Your task to perform on an android device: Go to privacy settings Image 0: 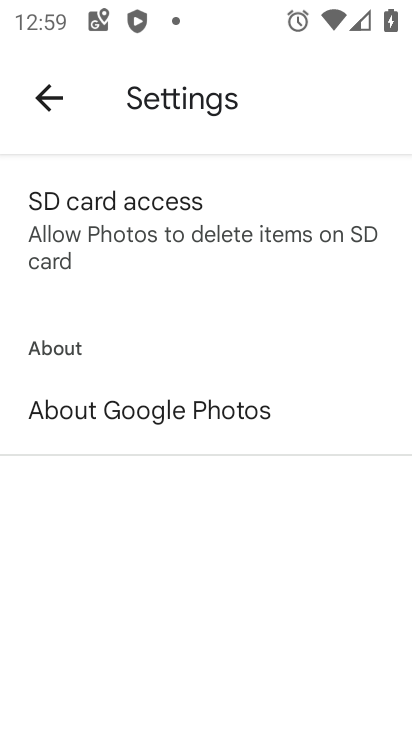
Step 0: press home button
Your task to perform on an android device: Go to privacy settings Image 1: 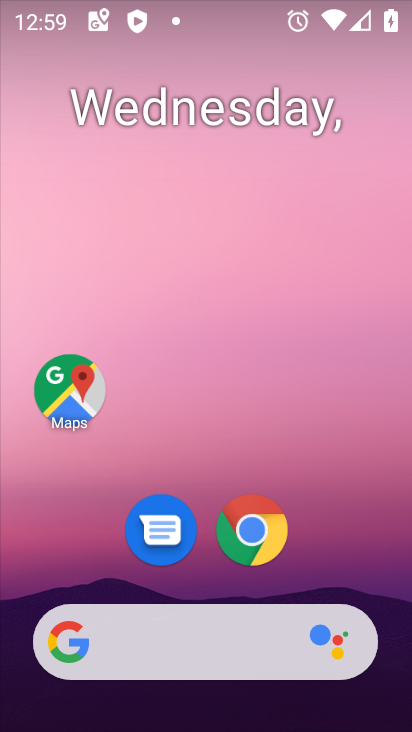
Step 1: drag from (211, 578) to (222, 175)
Your task to perform on an android device: Go to privacy settings Image 2: 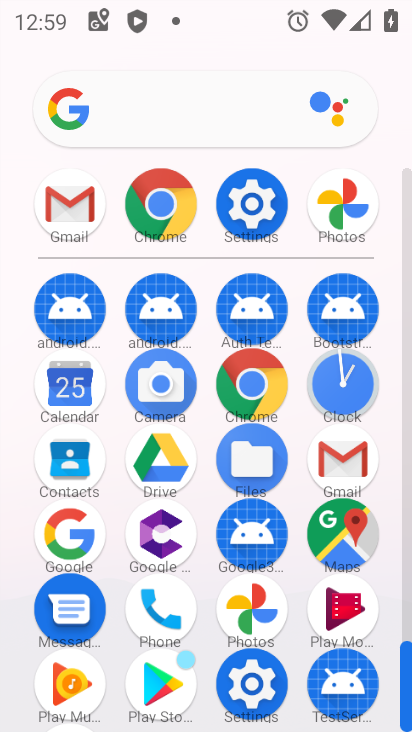
Step 2: click (253, 206)
Your task to perform on an android device: Go to privacy settings Image 3: 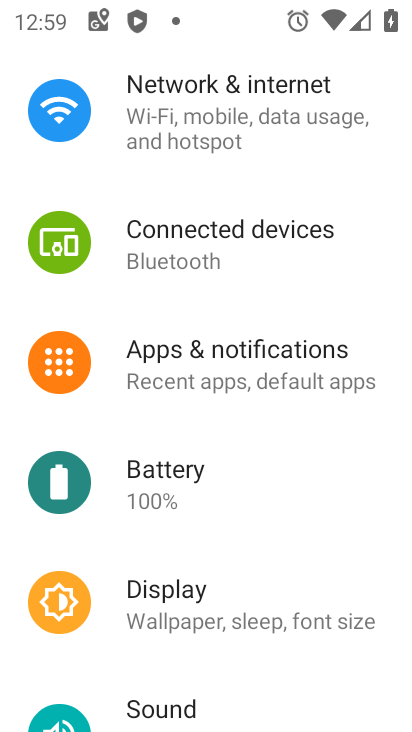
Step 3: drag from (216, 526) to (274, 87)
Your task to perform on an android device: Go to privacy settings Image 4: 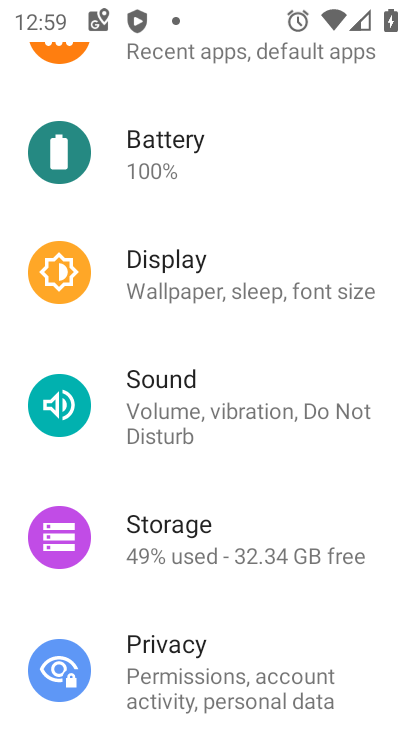
Step 4: click (245, 668)
Your task to perform on an android device: Go to privacy settings Image 5: 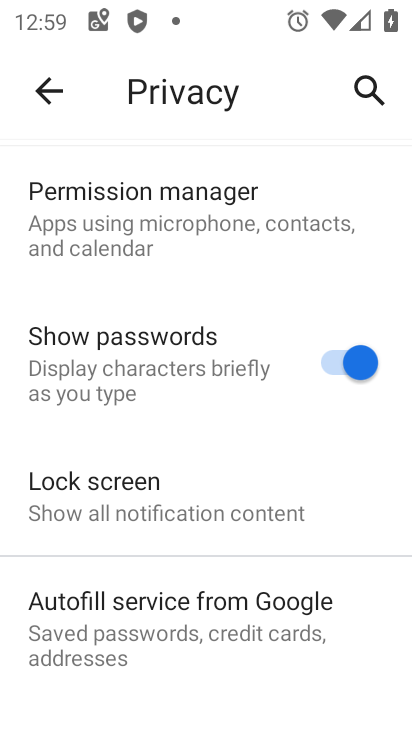
Step 5: task complete